Your task to perform on an android device: open a bookmark in the chrome app Image 0: 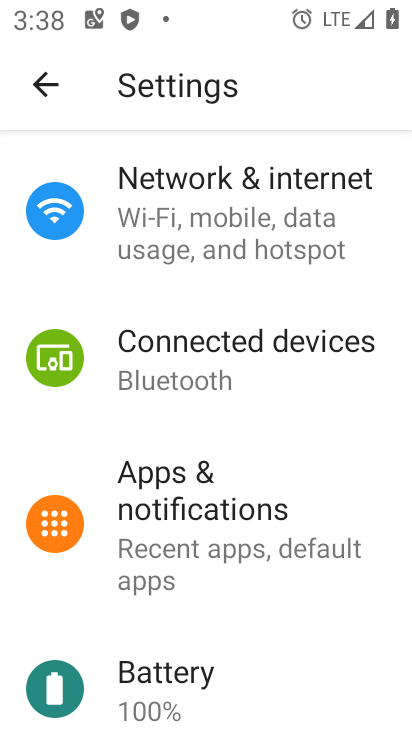
Step 0: press home button
Your task to perform on an android device: open a bookmark in the chrome app Image 1: 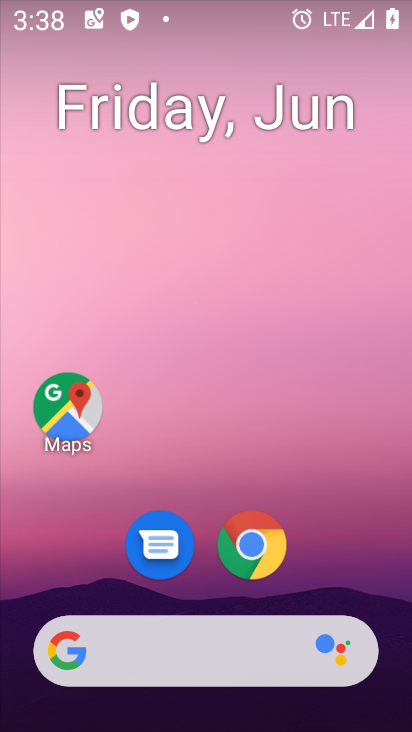
Step 1: drag from (342, 595) to (320, 0)
Your task to perform on an android device: open a bookmark in the chrome app Image 2: 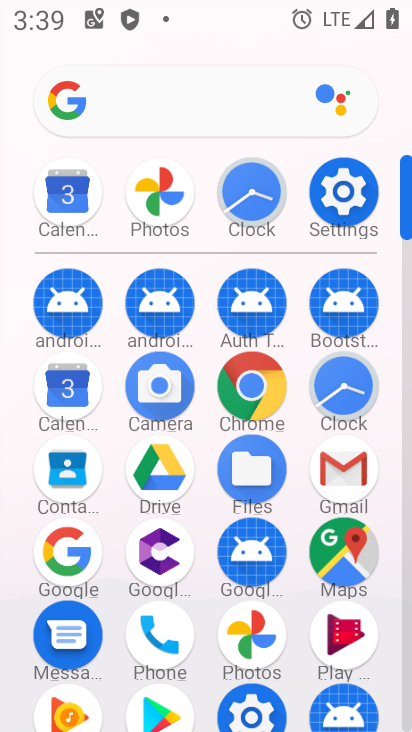
Step 2: click (241, 387)
Your task to perform on an android device: open a bookmark in the chrome app Image 3: 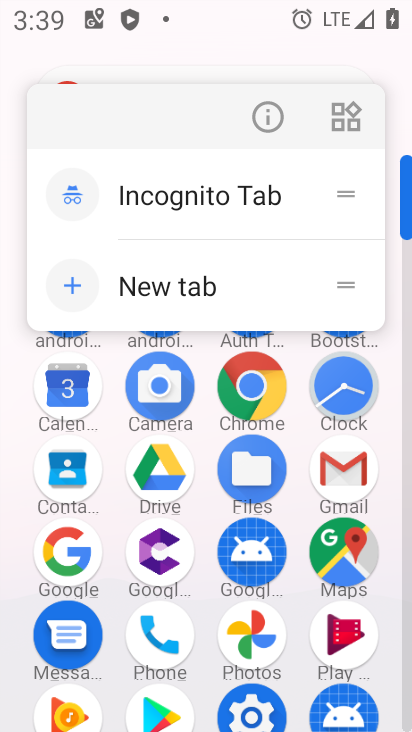
Step 3: click (241, 386)
Your task to perform on an android device: open a bookmark in the chrome app Image 4: 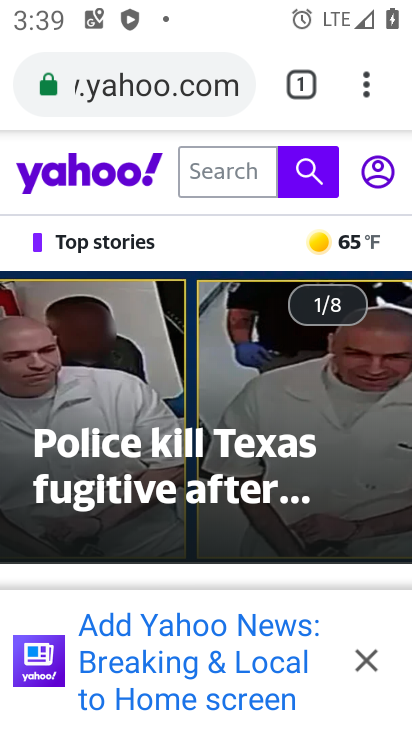
Step 4: click (359, 95)
Your task to perform on an android device: open a bookmark in the chrome app Image 5: 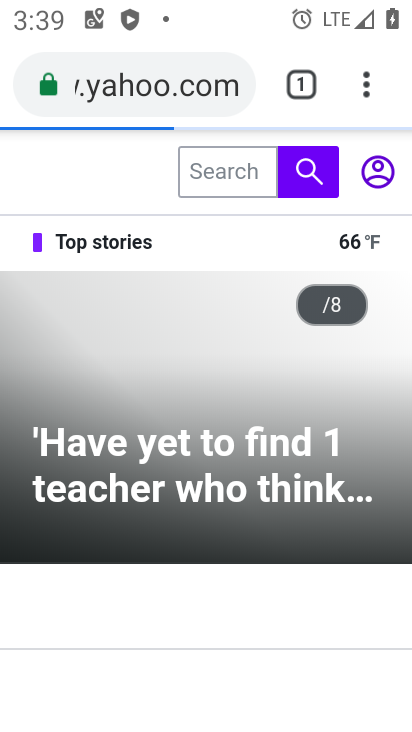
Step 5: click (360, 95)
Your task to perform on an android device: open a bookmark in the chrome app Image 6: 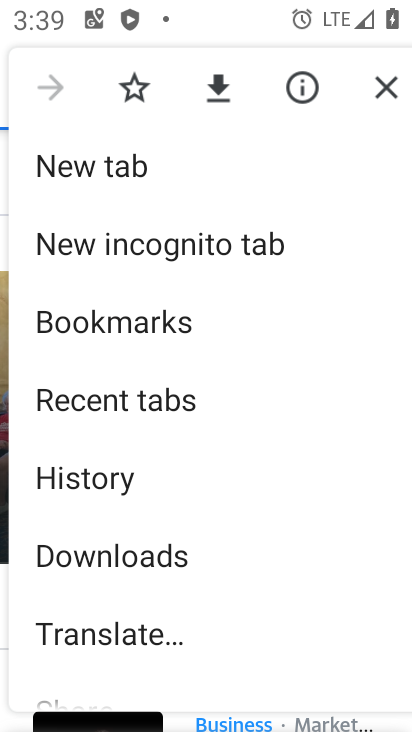
Step 6: click (98, 317)
Your task to perform on an android device: open a bookmark in the chrome app Image 7: 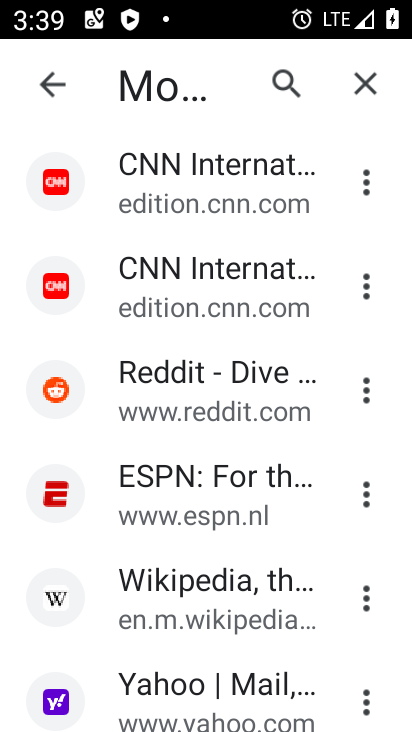
Step 7: click (193, 305)
Your task to perform on an android device: open a bookmark in the chrome app Image 8: 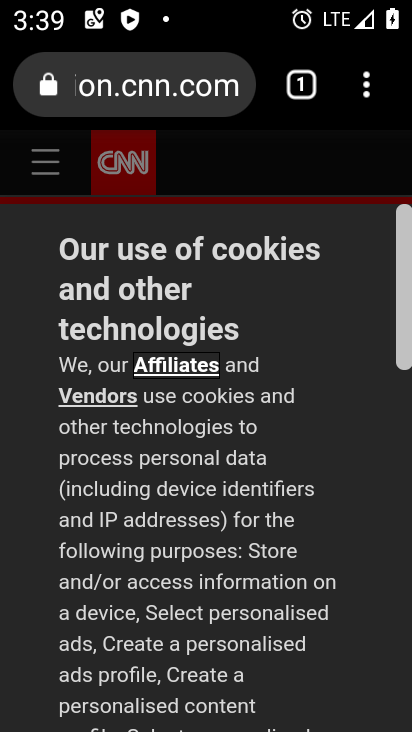
Step 8: task complete